Your task to perform on an android device: Go to calendar. Show me events next week Image 0: 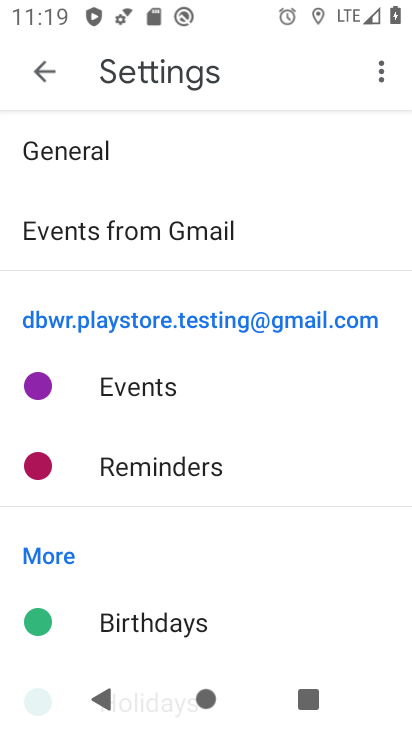
Step 0: press home button
Your task to perform on an android device: Go to calendar. Show me events next week Image 1: 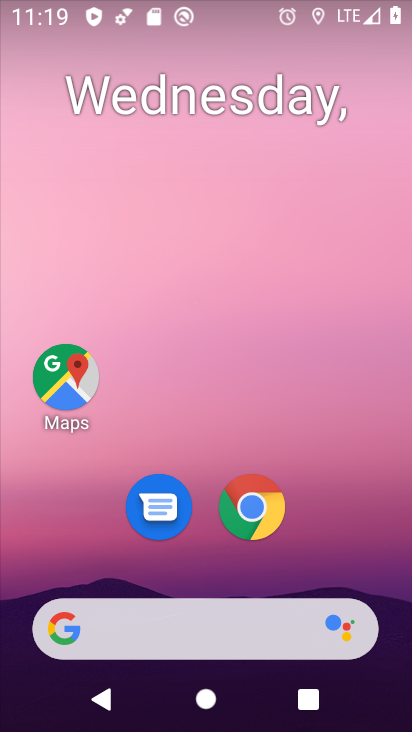
Step 1: drag from (343, 500) to (355, 128)
Your task to perform on an android device: Go to calendar. Show me events next week Image 2: 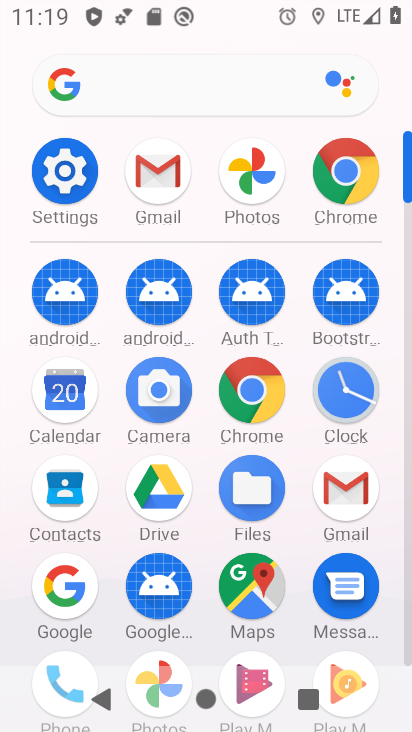
Step 2: click (63, 399)
Your task to perform on an android device: Go to calendar. Show me events next week Image 3: 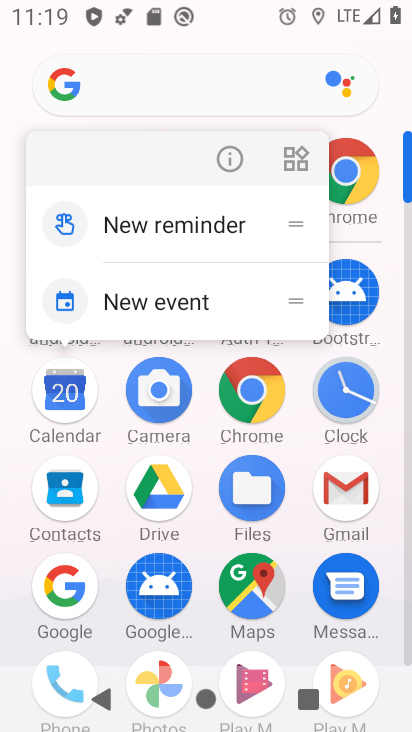
Step 3: click (64, 393)
Your task to perform on an android device: Go to calendar. Show me events next week Image 4: 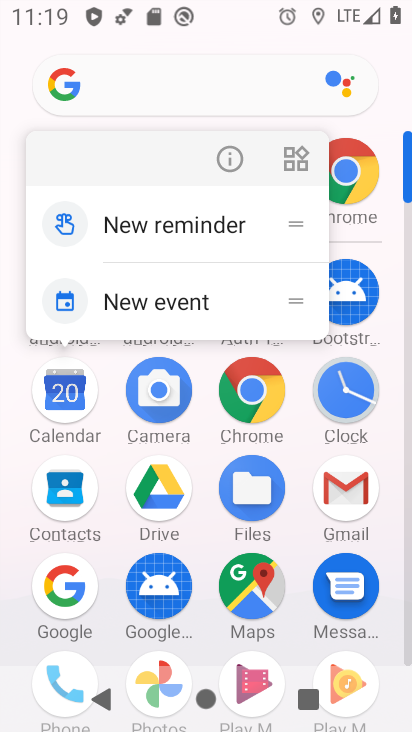
Step 4: click (69, 399)
Your task to perform on an android device: Go to calendar. Show me events next week Image 5: 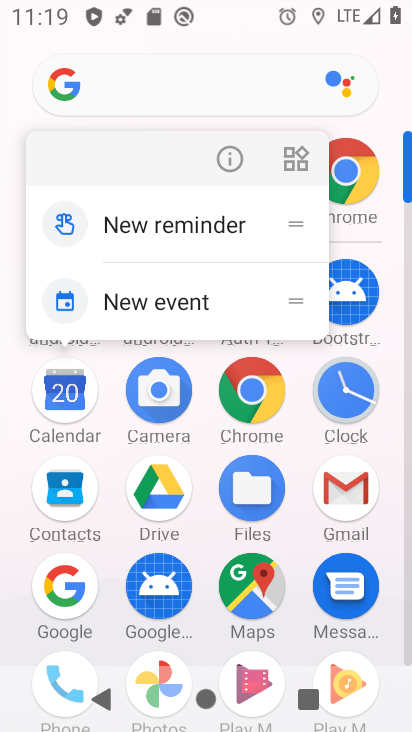
Step 5: click (69, 406)
Your task to perform on an android device: Go to calendar. Show me events next week Image 6: 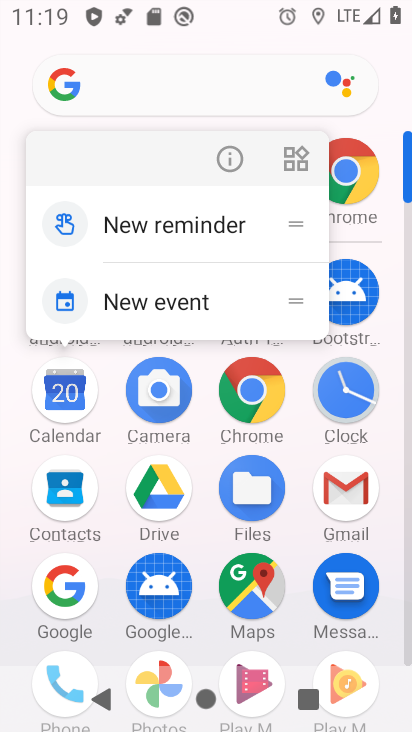
Step 6: click (68, 376)
Your task to perform on an android device: Go to calendar. Show me events next week Image 7: 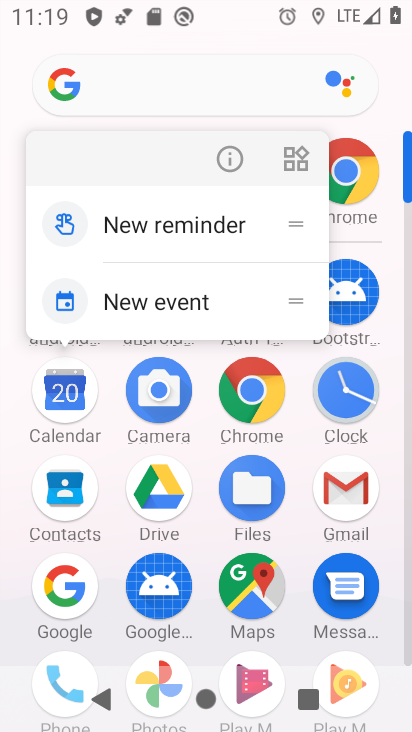
Step 7: click (77, 409)
Your task to perform on an android device: Go to calendar. Show me events next week Image 8: 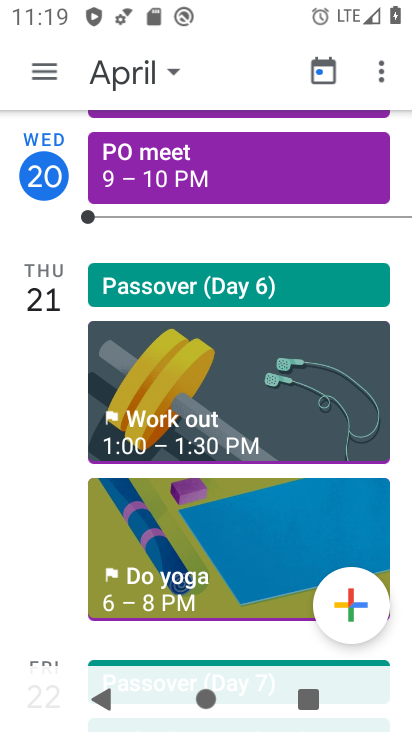
Step 8: task complete